Your task to perform on an android device: Open Chrome and go to settings Image 0: 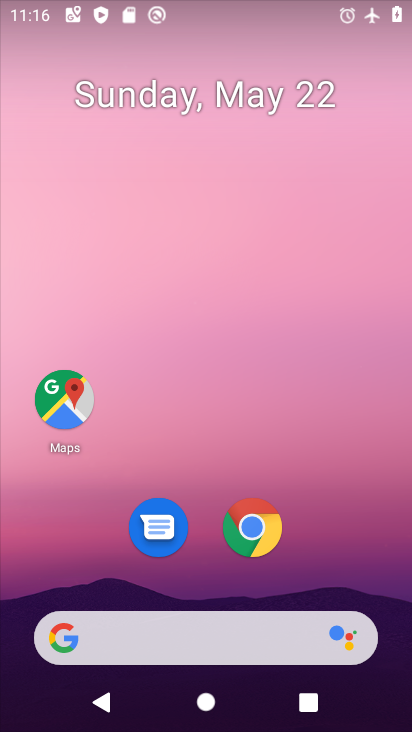
Step 0: click (270, 556)
Your task to perform on an android device: Open Chrome and go to settings Image 1: 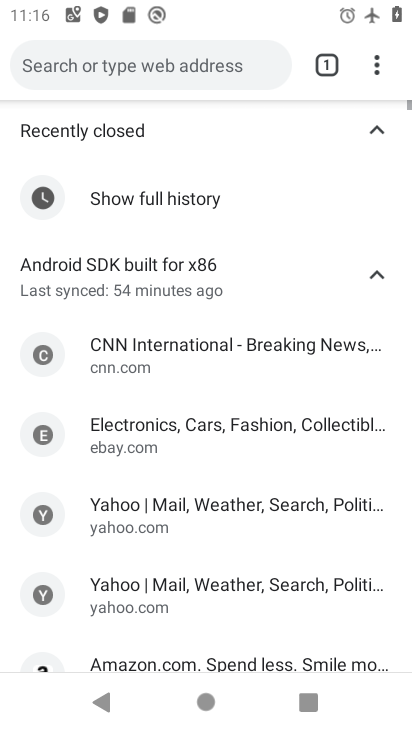
Step 1: click (369, 74)
Your task to perform on an android device: Open Chrome and go to settings Image 2: 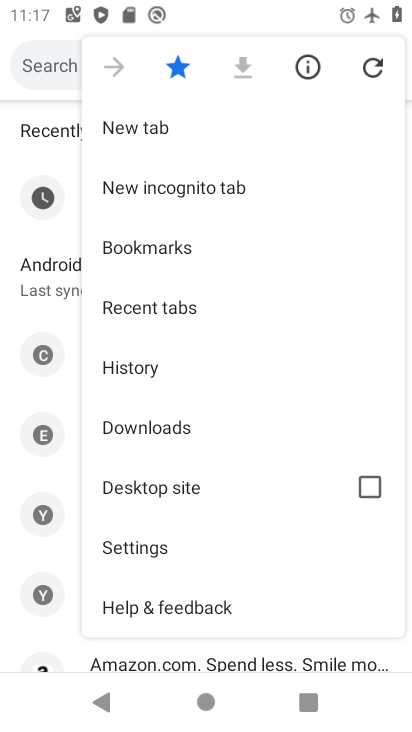
Step 2: click (154, 538)
Your task to perform on an android device: Open Chrome and go to settings Image 3: 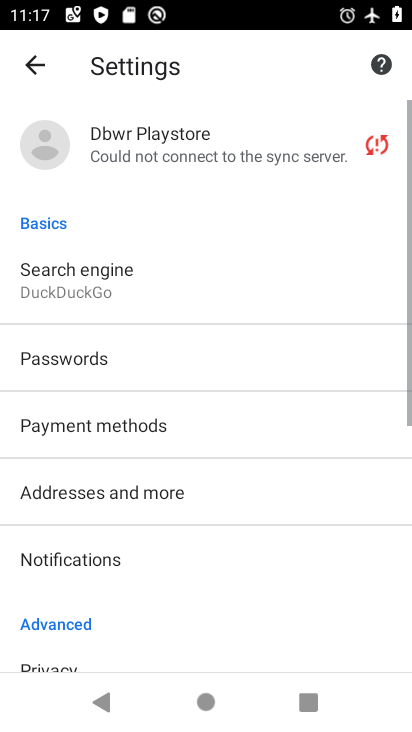
Step 3: task complete